Your task to perform on an android device: turn on location history Image 0: 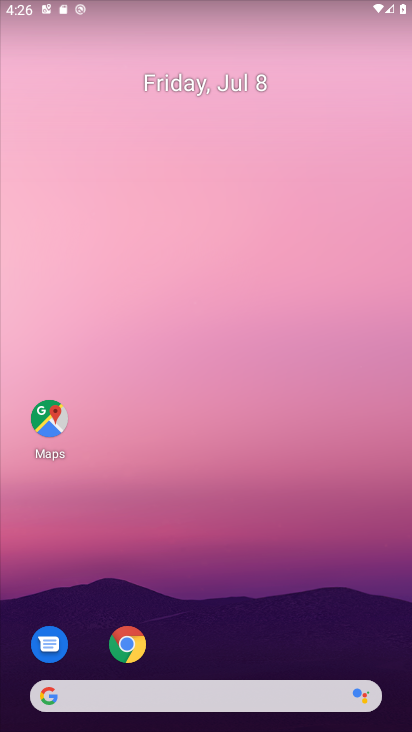
Step 0: drag from (366, 630) to (295, 114)
Your task to perform on an android device: turn on location history Image 1: 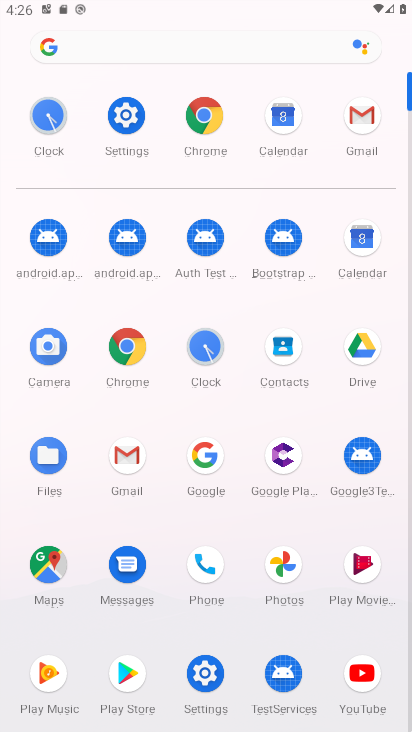
Step 1: click (49, 558)
Your task to perform on an android device: turn on location history Image 2: 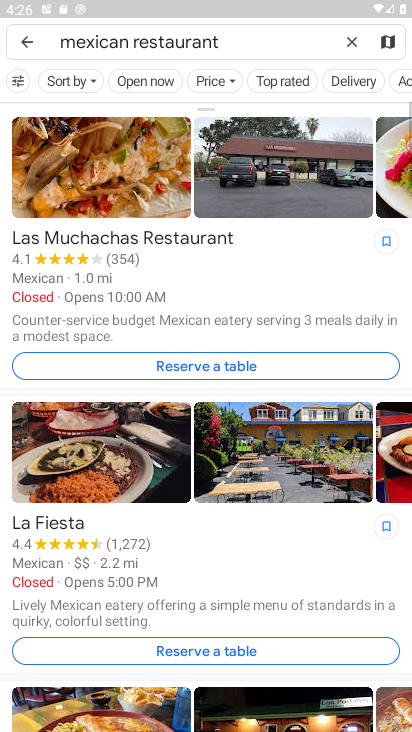
Step 2: click (348, 40)
Your task to perform on an android device: turn on location history Image 3: 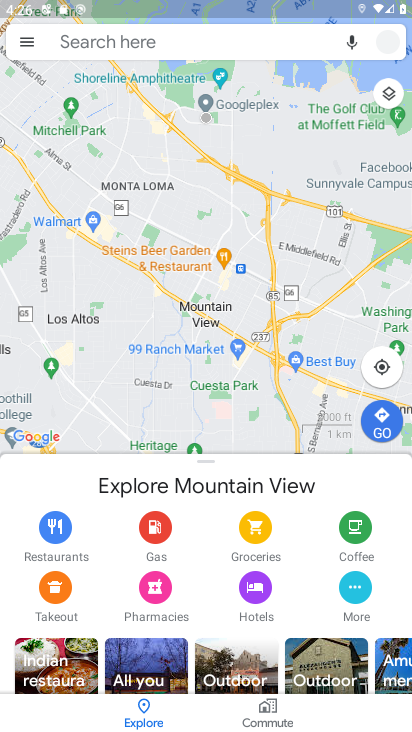
Step 3: click (23, 37)
Your task to perform on an android device: turn on location history Image 4: 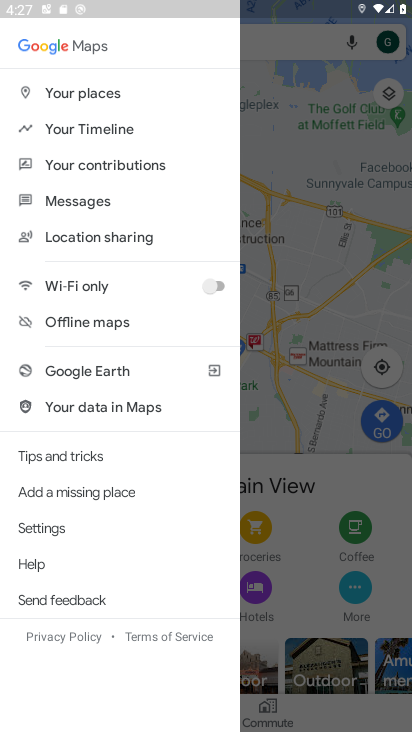
Step 4: click (47, 530)
Your task to perform on an android device: turn on location history Image 5: 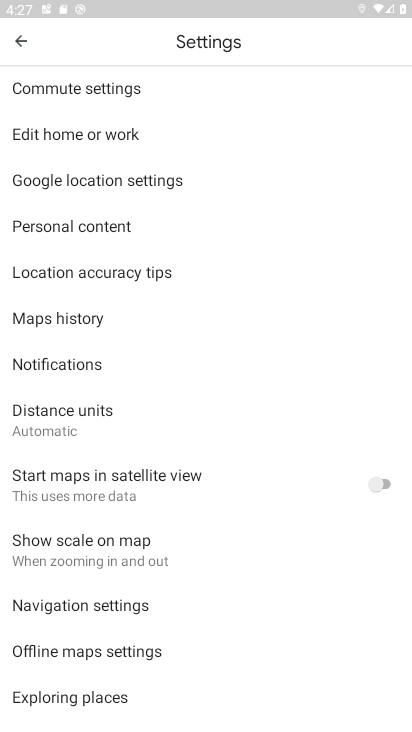
Step 5: click (65, 227)
Your task to perform on an android device: turn on location history Image 6: 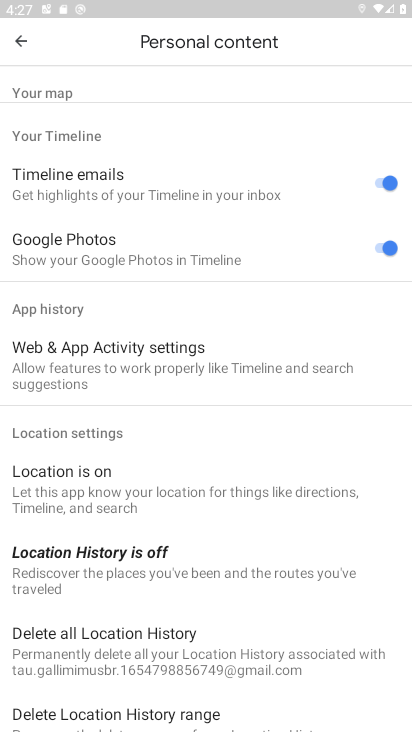
Step 6: click (59, 558)
Your task to perform on an android device: turn on location history Image 7: 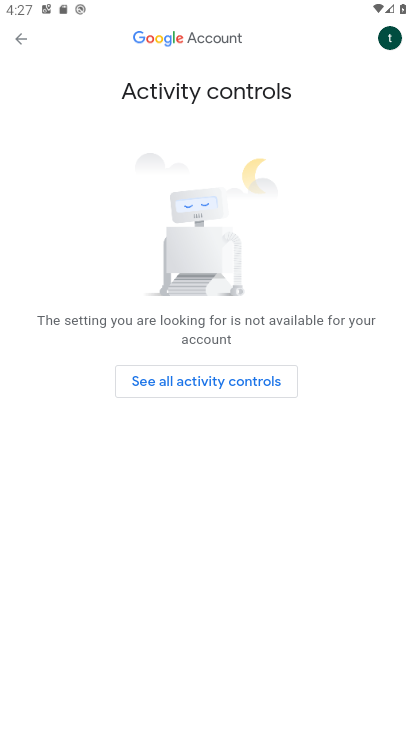
Step 7: click (203, 388)
Your task to perform on an android device: turn on location history Image 8: 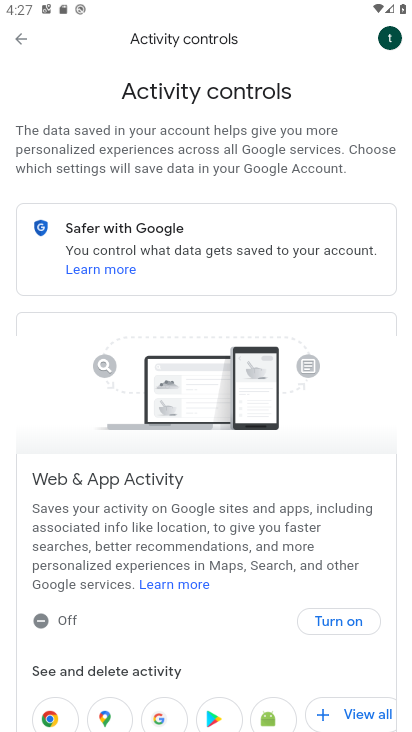
Step 8: click (334, 627)
Your task to perform on an android device: turn on location history Image 9: 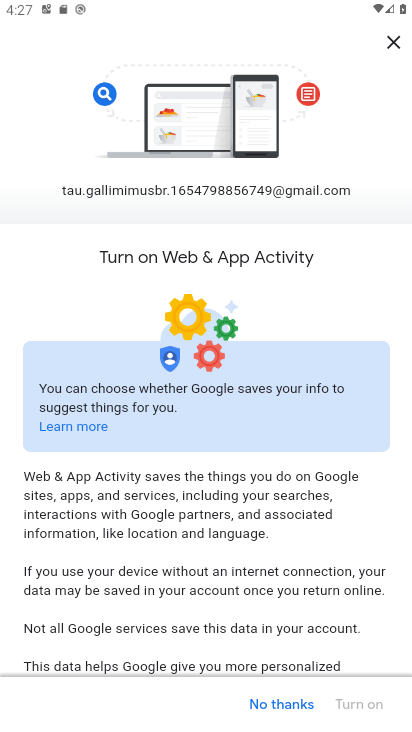
Step 9: drag from (284, 641) to (245, 210)
Your task to perform on an android device: turn on location history Image 10: 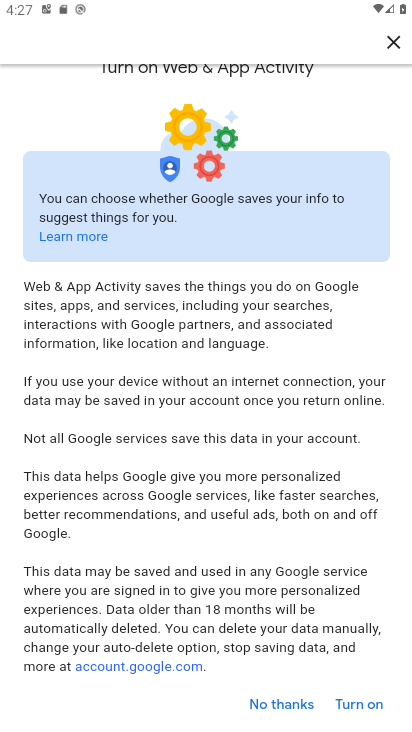
Step 10: click (363, 705)
Your task to perform on an android device: turn on location history Image 11: 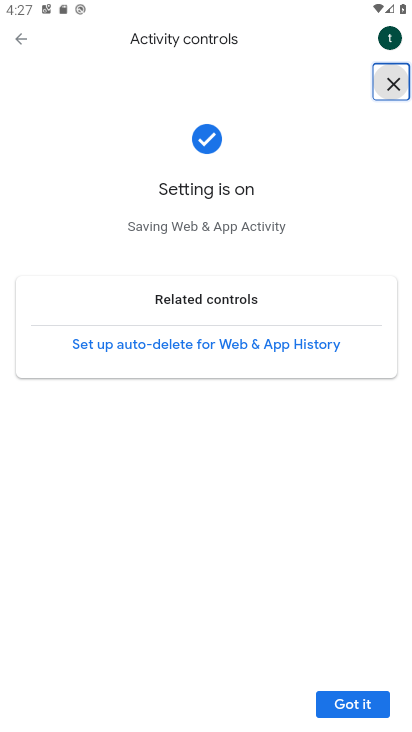
Step 11: click (356, 712)
Your task to perform on an android device: turn on location history Image 12: 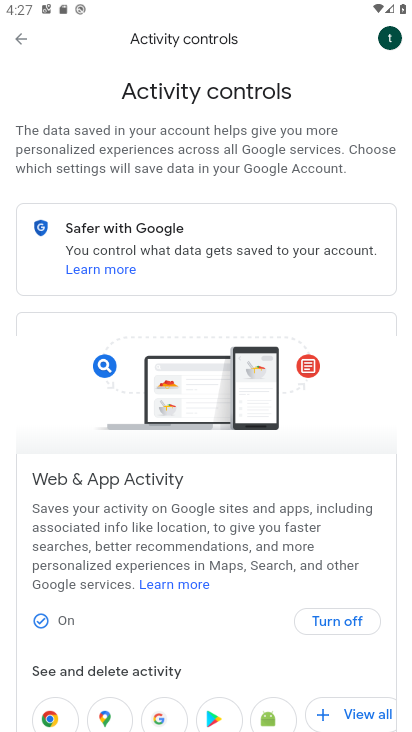
Step 12: task complete